Your task to perform on an android device: stop showing notifications on the lock screen Image 0: 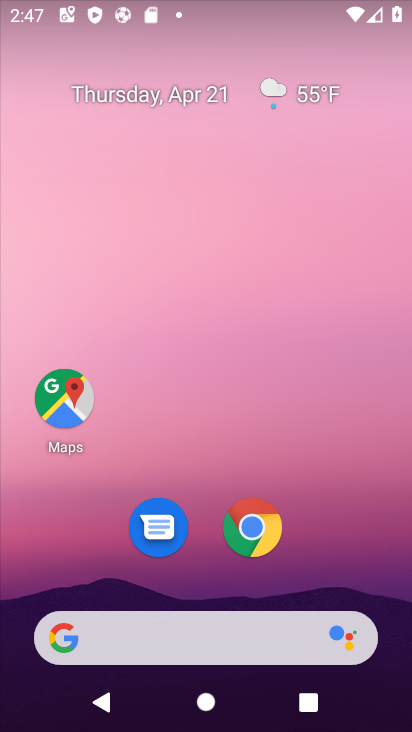
Step 0: drag from (391, 541) to (334, 284)
Your task to perform on an android device: stop showing notifications on the lock screen Image 1: 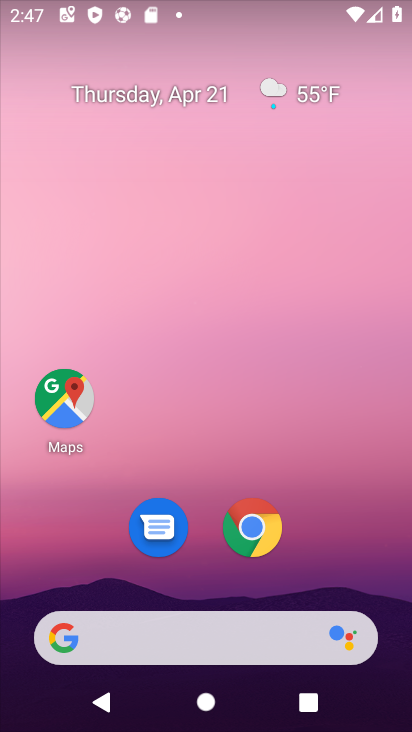
Step 1: drag from (363, 422) to (300, 187)
Your task to perform on an android device: stop showing notifications on the lock screen Image 2: 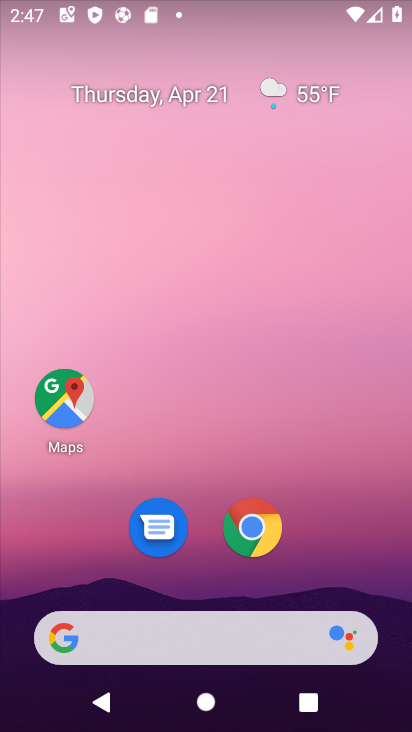
Step 2: drag from (349, 593) to (317, 153)
Your task to perform on an android device: stop showing notifications on the lock screen Image 3: 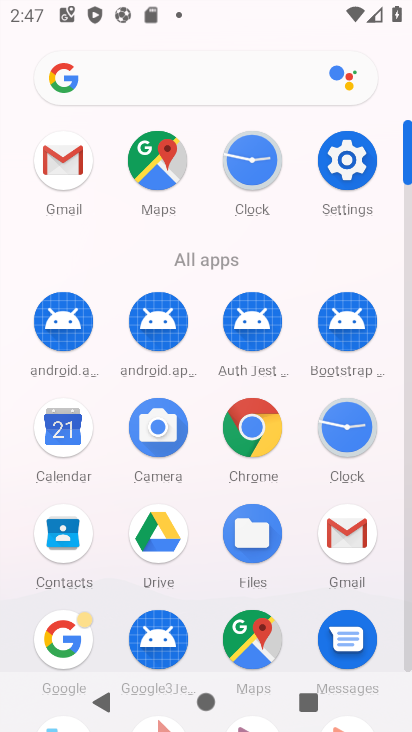
Step 3: click (362, 164)
Your task to perform on an android device: stop showing notifications on the lock screen Image 4: 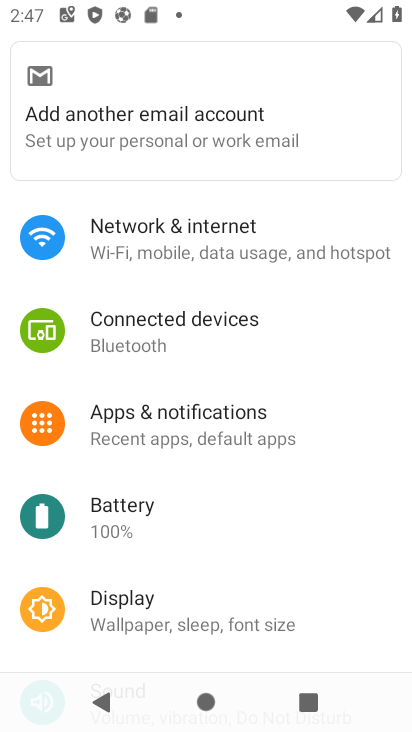
Step 4: drag from (273, 564) to (237, 266)
Your task to perform on an android device: stop showing notifications on the lock screen Image 5: 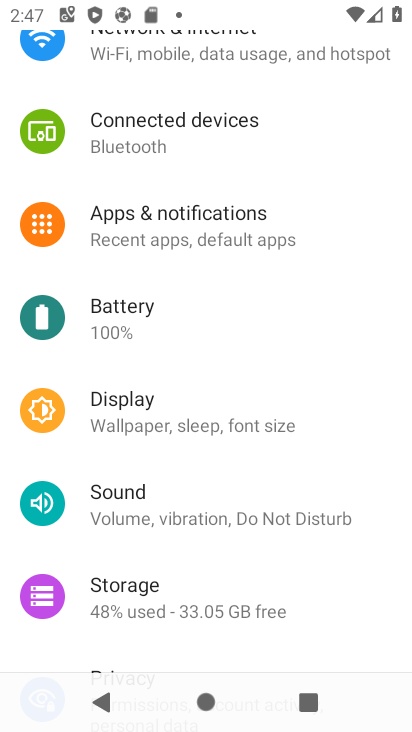
Step 5: click (237, 266)
Your task to perform on an android device: stop showing notifications on the lock screen Image 6: 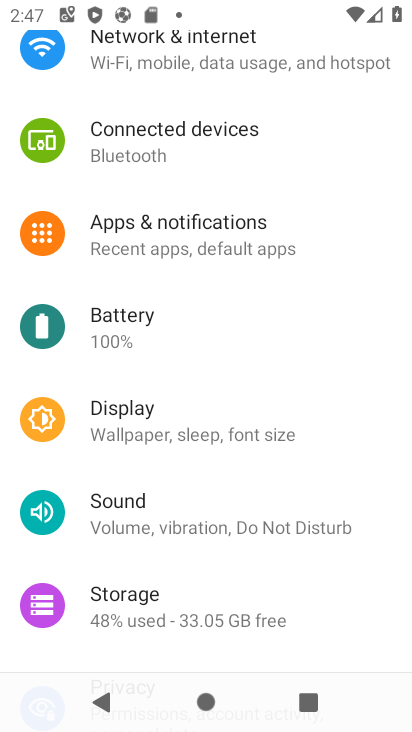
Step 6: click (243, 267)
Your task to perform on an android device: stop showing notifications on the lock screen Image 7: 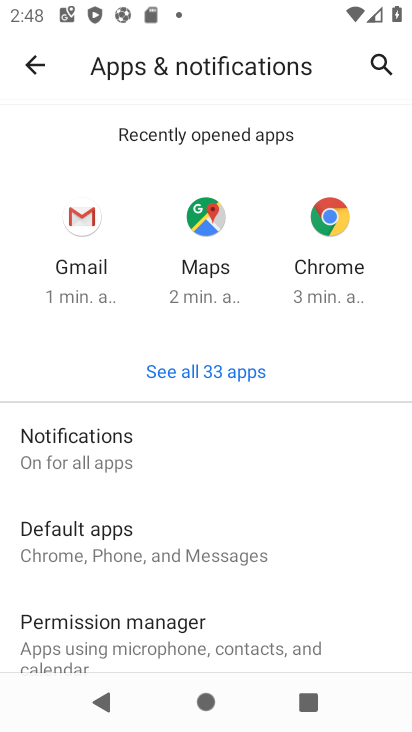
Step 7: click (230, 453)
Your task to perform on an android device: stop showing notifications on the lock screen Image 8: 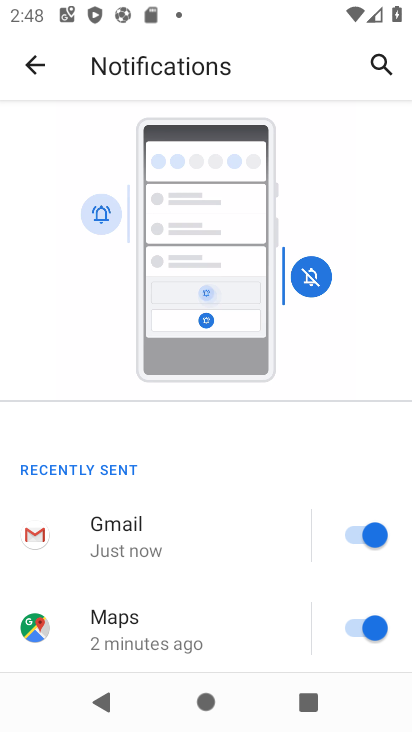
Step 8: drag from (235, 597) to (236, 261)
Your task to perform on an android device: stop showing notifications on the lock screen Image 9: 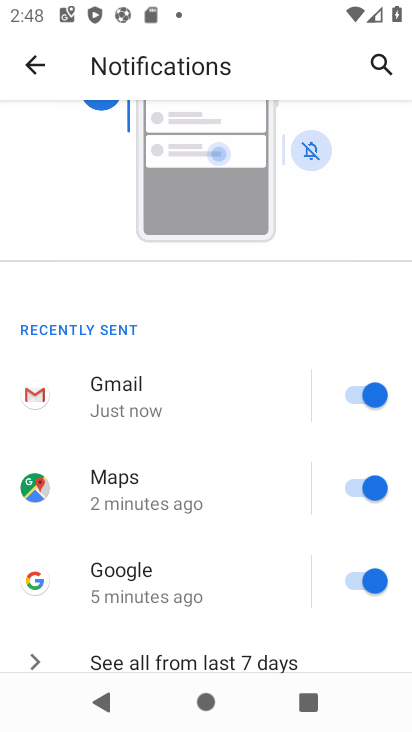
Step 9: drag from (276, 619) to (224, 144)
Your task to perform on an android device: stop showing notifications on the lock screen Image 10: 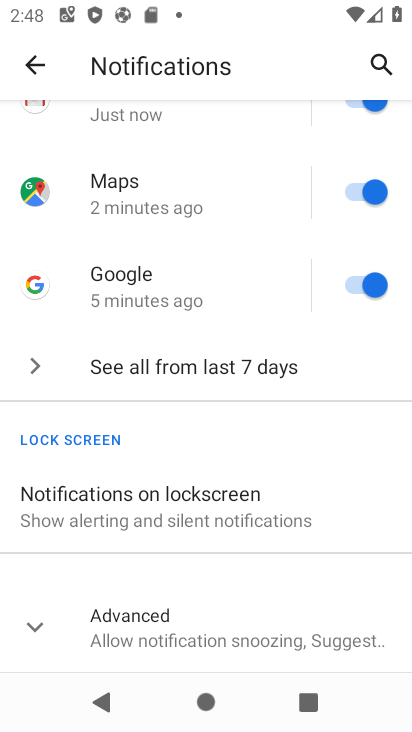
Step 10: click (196, 519)
Your task to perform on an android device: stop showing notifications on the lock screen Image 11: 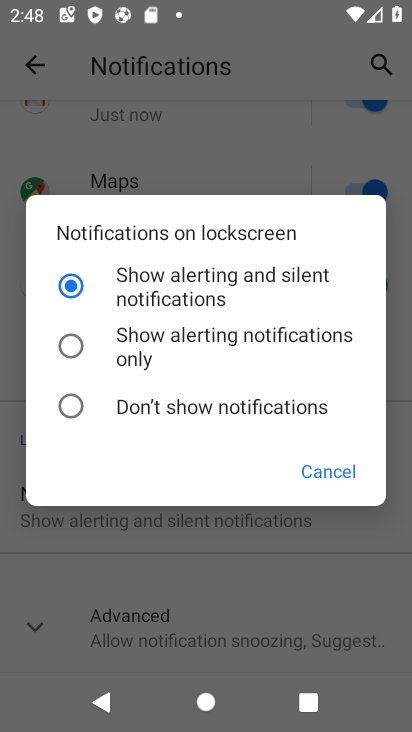
Step 11: click (225, 407)
Your task to perform on an android device: stop showing notifications on the lock screen Image 12: 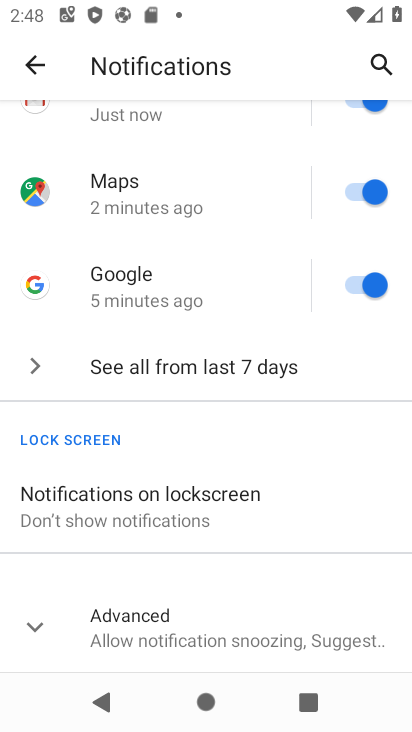
Step 12: task complete